Your task to perform on an android device: Open the stopwatch Image 0: 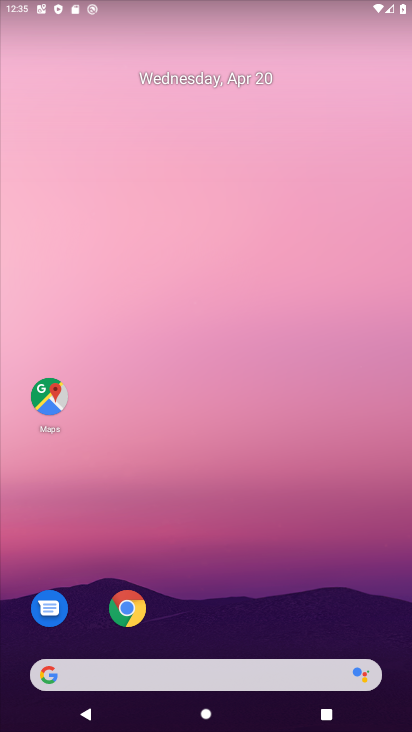
Step 0: drag from (298, 617) to (131, 30)
Your task to perform on an android device: Open the stopwatch Image 1: 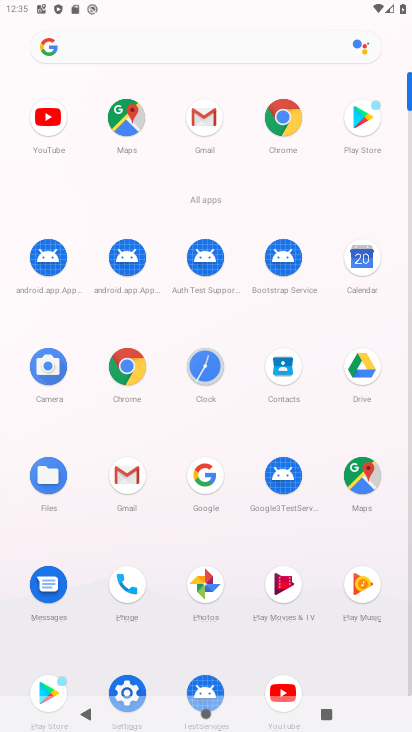
Step 1: click (208, 354)
Your task to perform on an android device: Open the stopwatch Image 2: 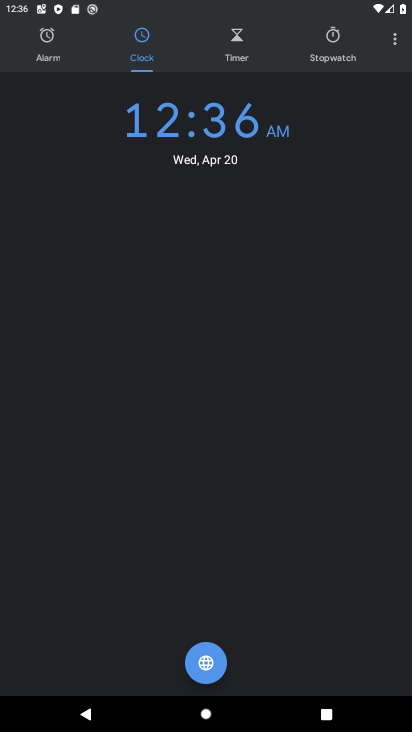
Step 2: click (344, 48)
Your task to perform on an android device: Open the stopwatch Image 3: 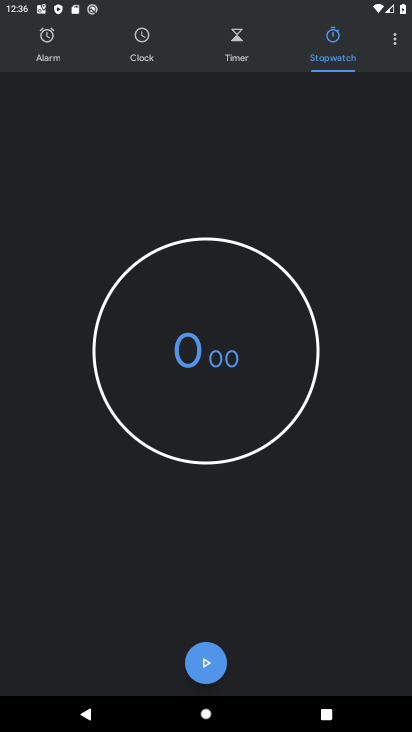
Step 3: task complete